Your task to perform on an android device: Search for sushi restaurants on Maps Image 0: 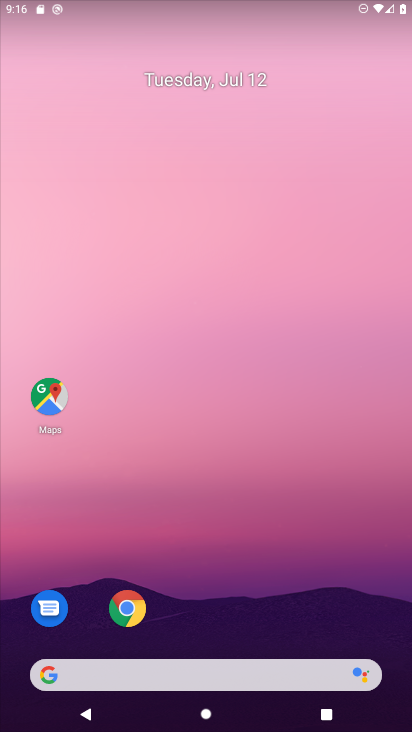
Step 0: click (63, 382)
Your task to perform on an android device: Search for sushi restaurants on Maps Image 1: 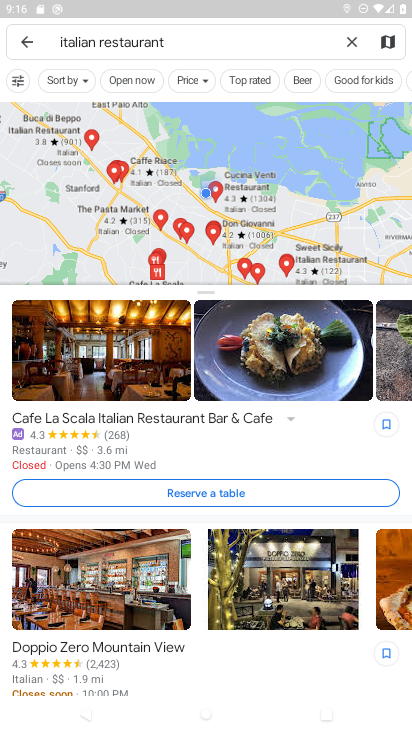
Step 1: click (347, 35)
Your task to perform on an android device: Search for sushi restaurants on Maps Image 2: 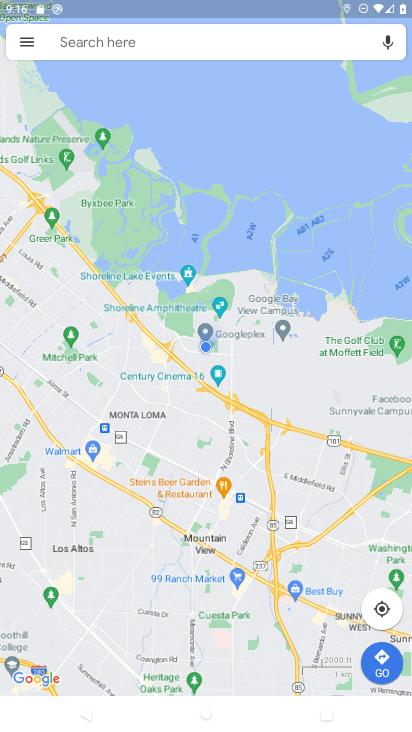
Step 2: click (247, 44)
Your task to perform on an android device: Search for sushi restaurants on Maps Image 3: 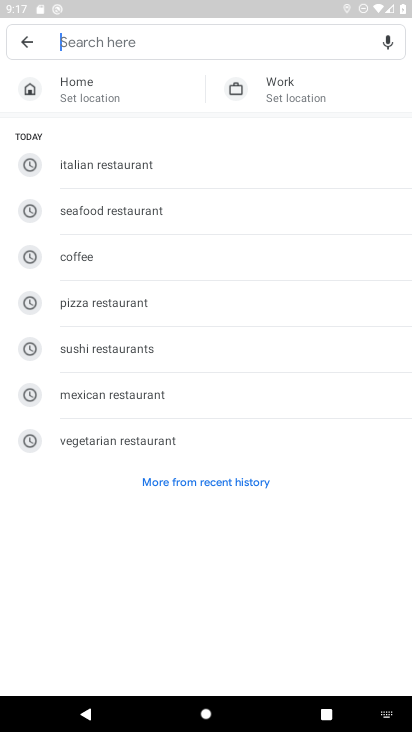
Step 3: click (172, 344)
Your task to perform on an android device: Search for sushi restaurants on Maps Image 4: 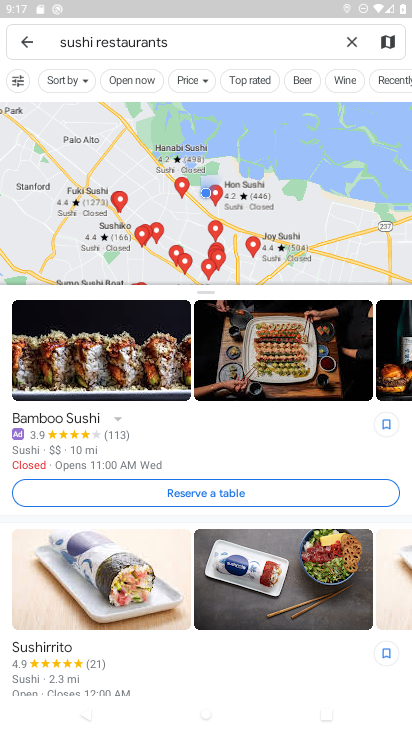
Step 4: task complete